Your task to perform on an android device: What's the weather? Image 0: 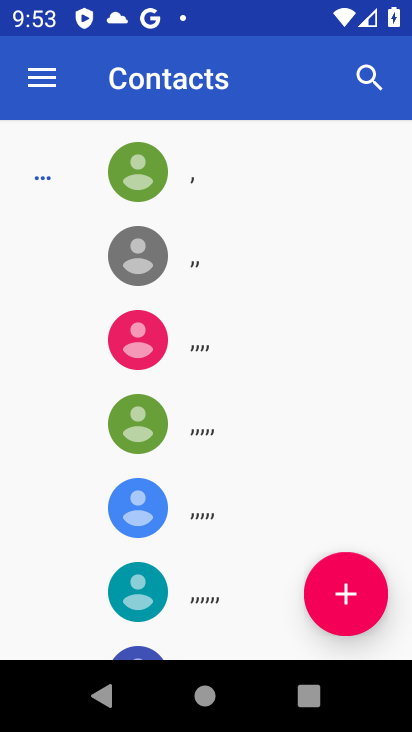
Step 0: press home button
Your task to perform on an android device: What's the weather? Image 1: 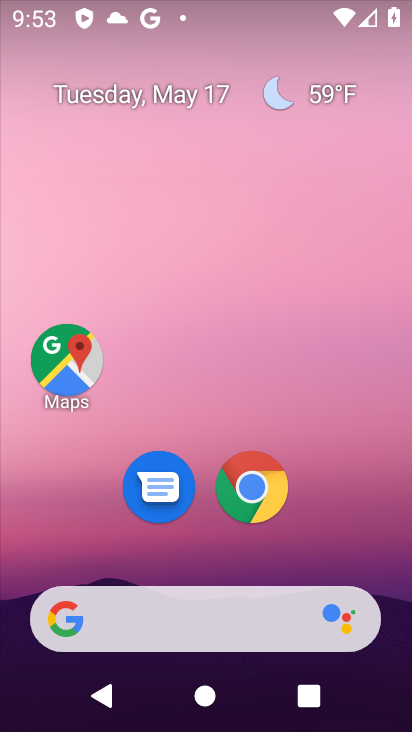
Step 1: drag from (398, 677) to (397, 496)
Your task to perform on an android device: What's the weather? Image 2: 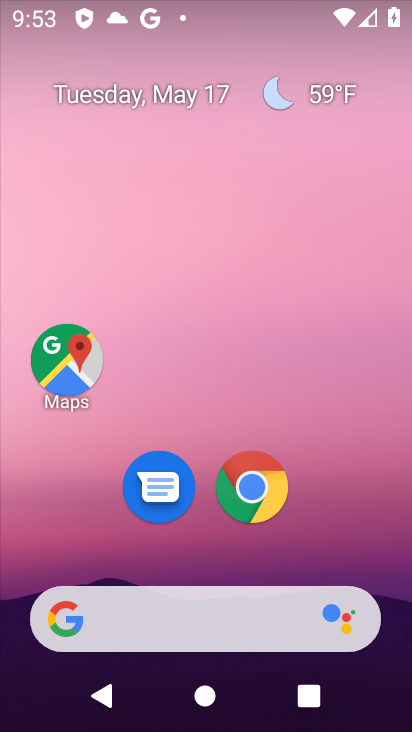
Step 2: click (335, 98)
Your task to perform on an android device: What's the weather? Image 3: 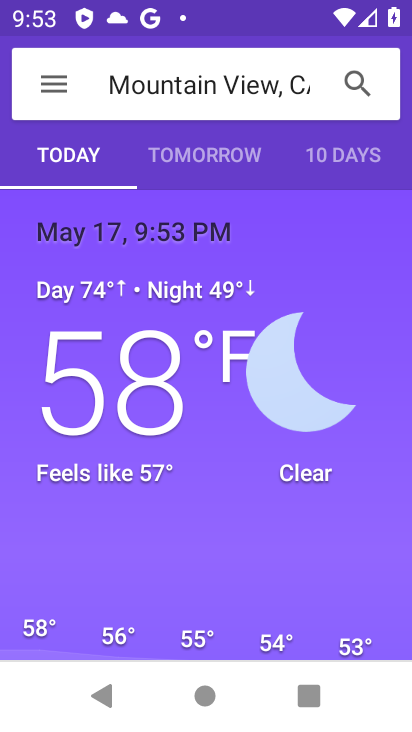
Step 3: task complete